Your task to perform on an android device: Open settings on Google Maps Image 0: 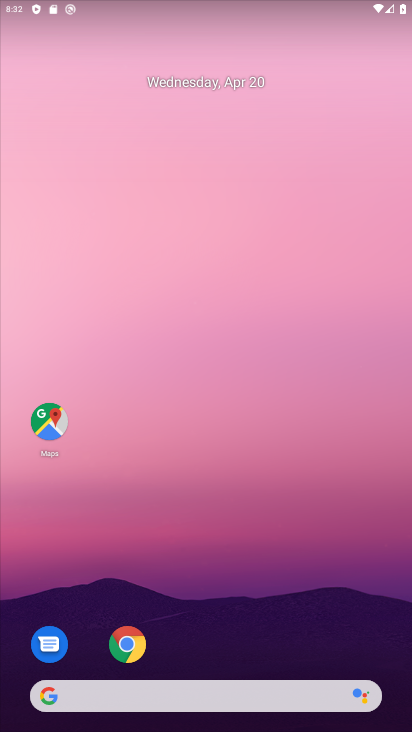
Step 0: click (43, 419)
Your task to perform on an android device: Open settings on Google Maps Image 1: 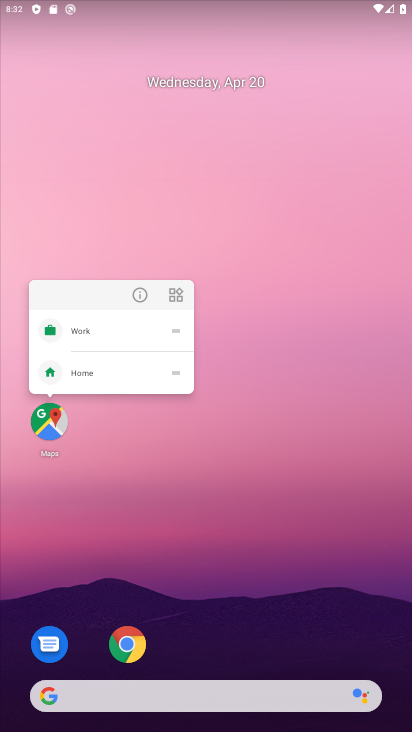
Step 1: click (43, 419)
Your task to perform on an android device: Open settings on Google Maps Image 2: 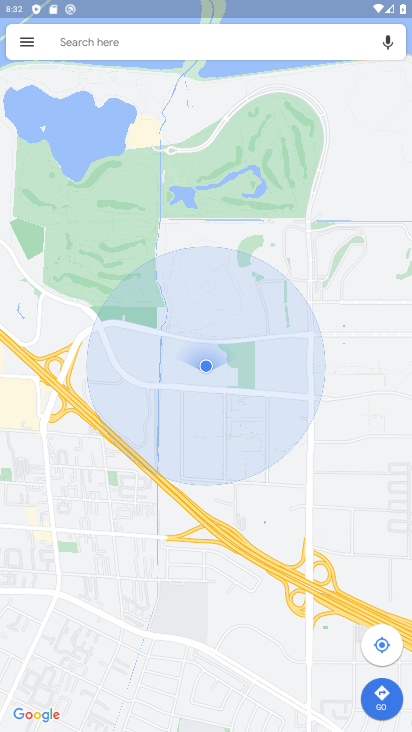
Step 2: click (28, 42)
Your task to perform on an android device: Open settings on Google Maps Image 3: 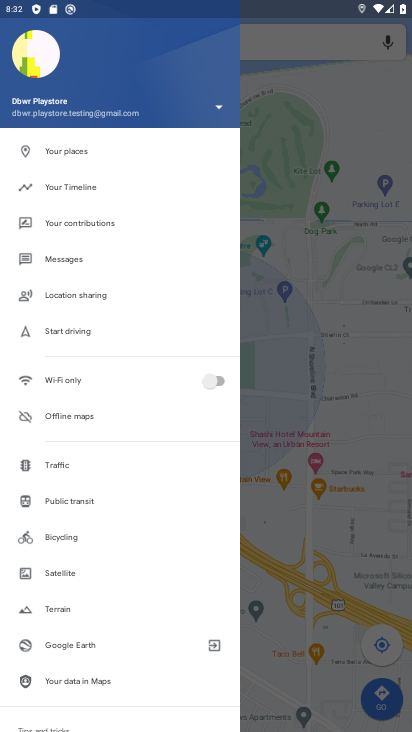
Step 3: drag from (88, 645) to (92, 484)
Your task to perform on an android device: Open settings on Google Maps Image 4: 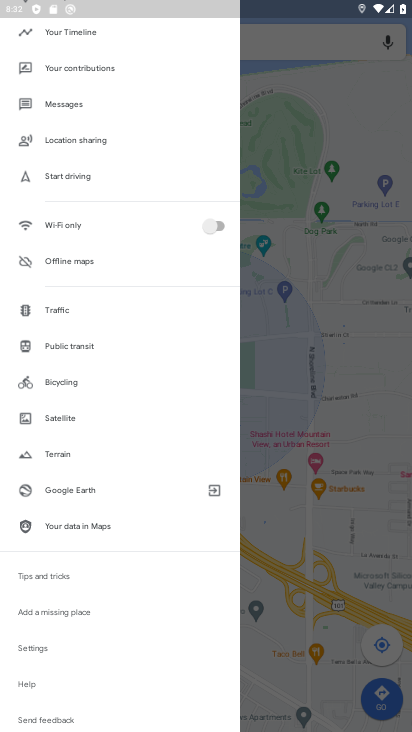
Step 4: click (37, 652)
Your task to perform on an android device: Open settings on Google Maps Image 5: 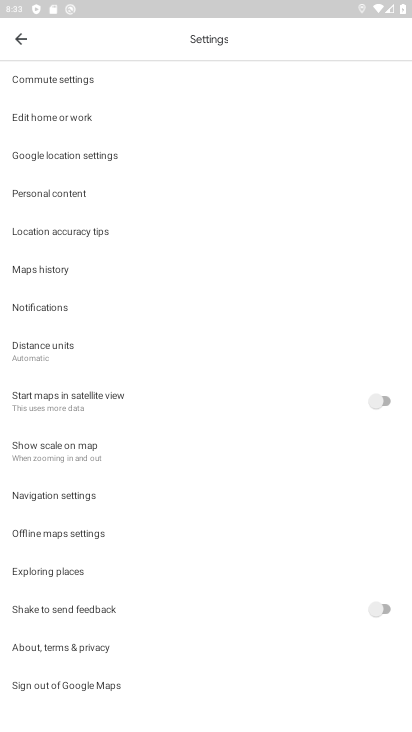
Step 5: task complete